Your task to perform on an android device: Open Wikipedia Image 0: 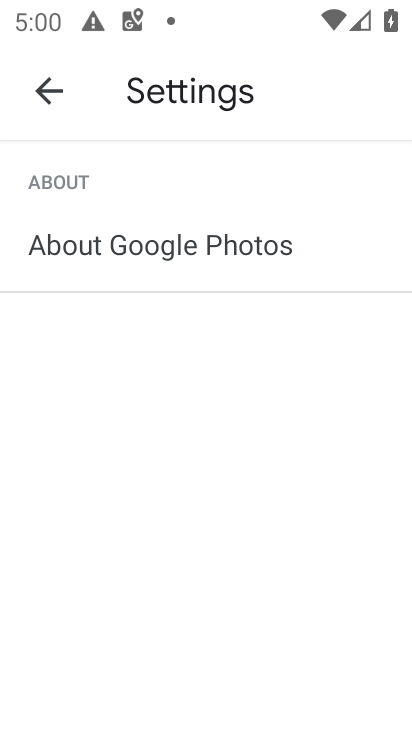
Step 0: press home button
Your task to perform on an android device: Open Wikipedia Image 1: 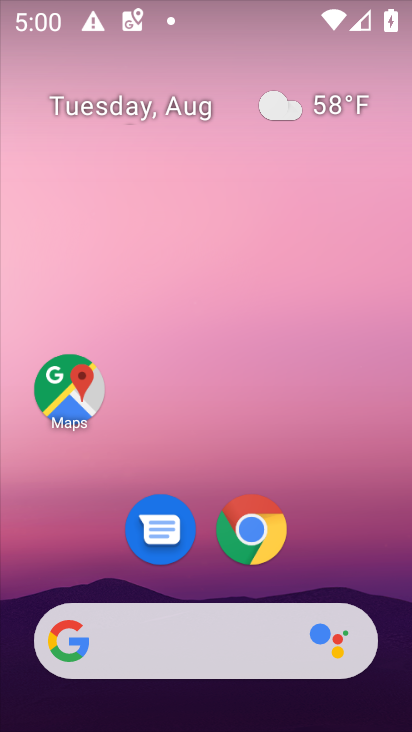
Step 1: click (250, 510)
Your task to perform on an android device: Open Wikipedia Image 2: 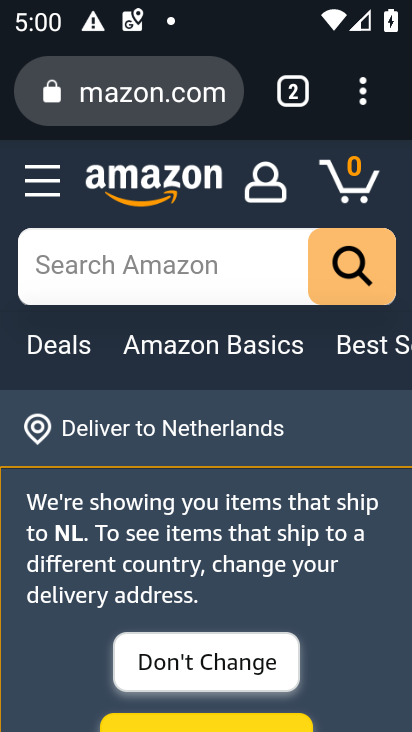
Step 2: click (291, 97)
Your task to perform on an android device: Open Wikipedia Image 3: 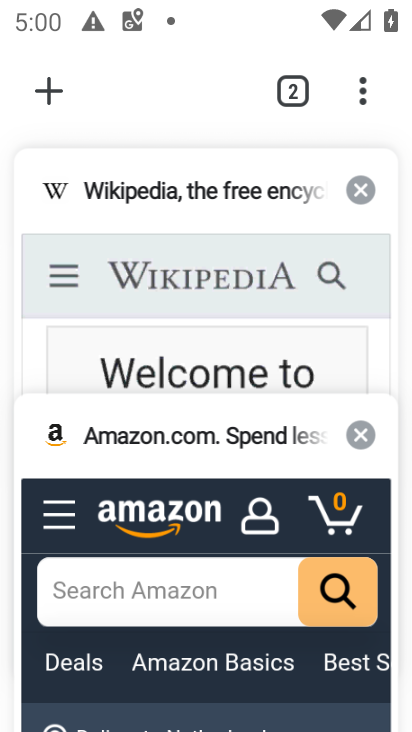
Step 3: click (153, 219)
Your task to perform on an android device: Open Wikipedia Image 4: 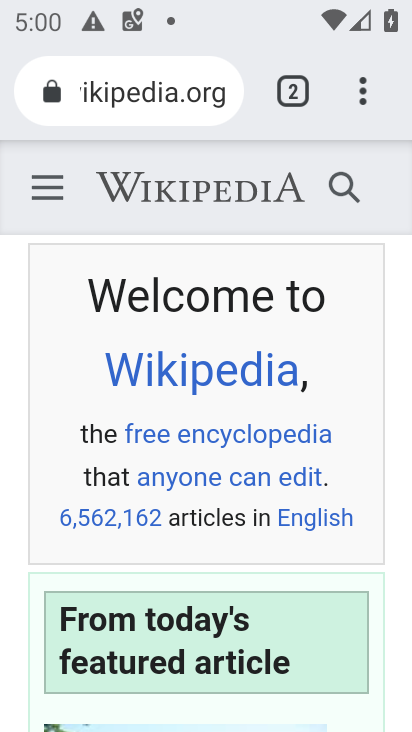
Step 4: task complete